Your task to perform on an android device: Open battery settings Image 0: 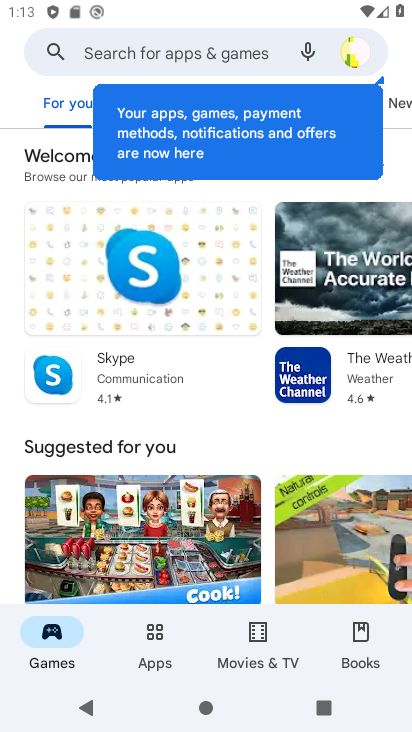
Step 0: press home button
Your task to perform on an android device: Open battery settings Image 1: 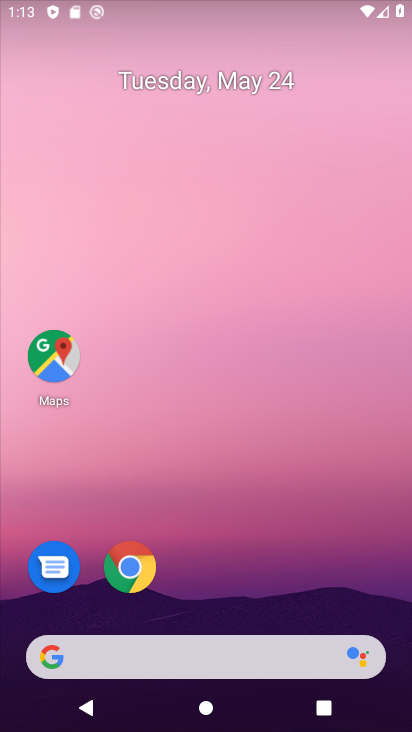
Step 1: drag from (230, 594) to (322, 32)
Your task to perform on an android device: Open battery settings Image 2: 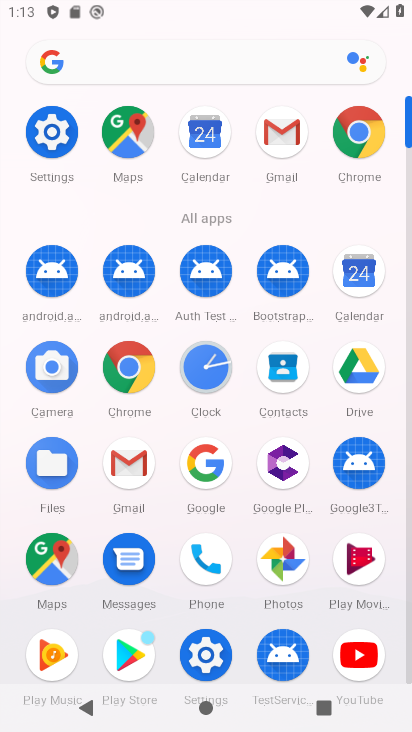
Step 2: click (210, 649)
Your task to perform on an android device: Open battery settings Image 3: 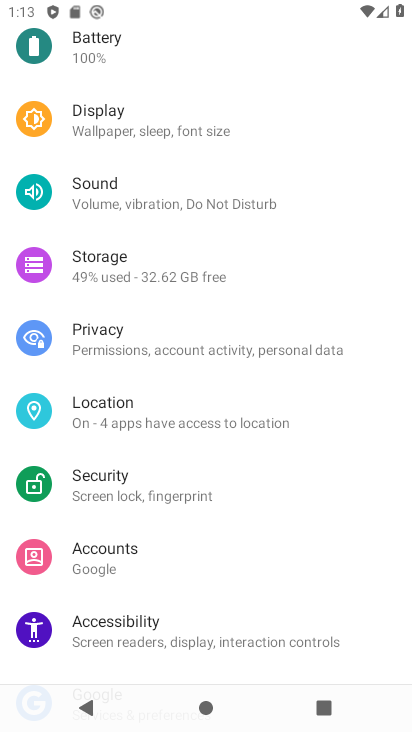
Step 3: drag from (168, 239) to (163, 405)
Your task to perform on an android device: Open battery settings Image 4: 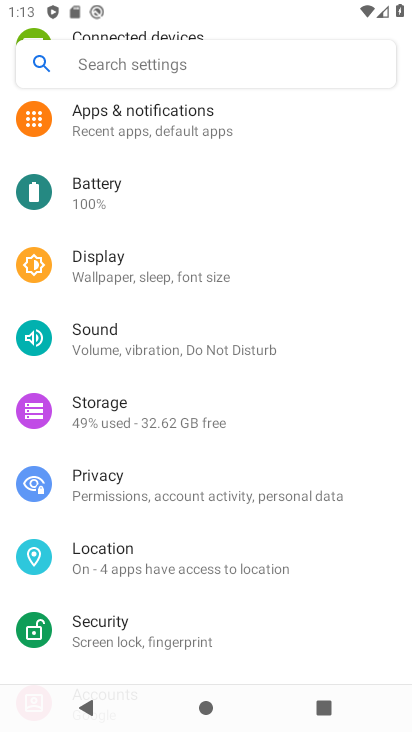
Step 4: click (114, 206)
Your task to perform on an android device: Open battery settings Image 5: 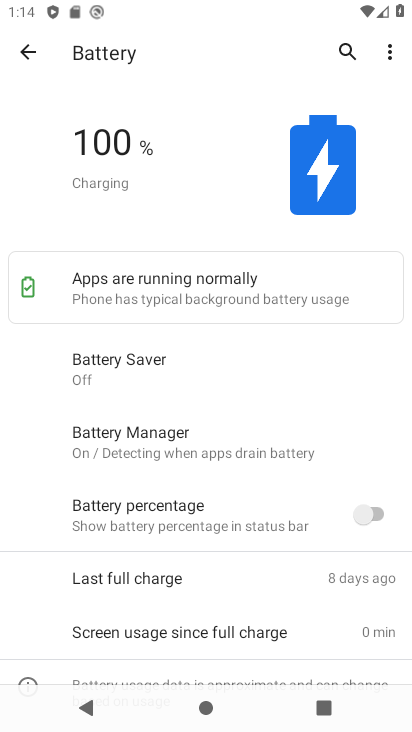
Step 5: task complete